Your task to perform on an android device: change timer sound Image 0: 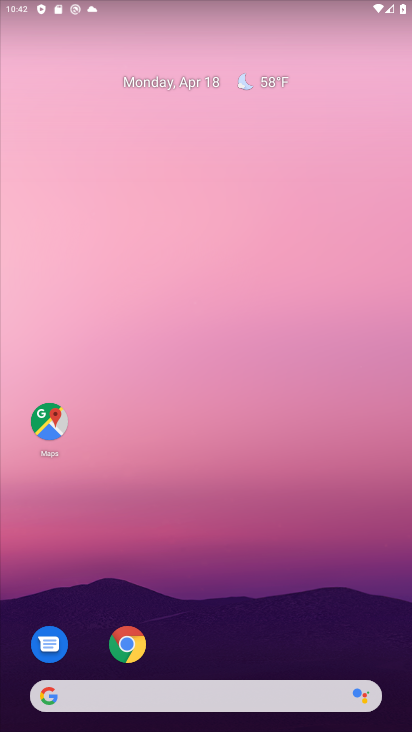
Step 0: drag from (215, 660) to (275, 225)
Your task to perform on an android device: change timer sound Image 1: 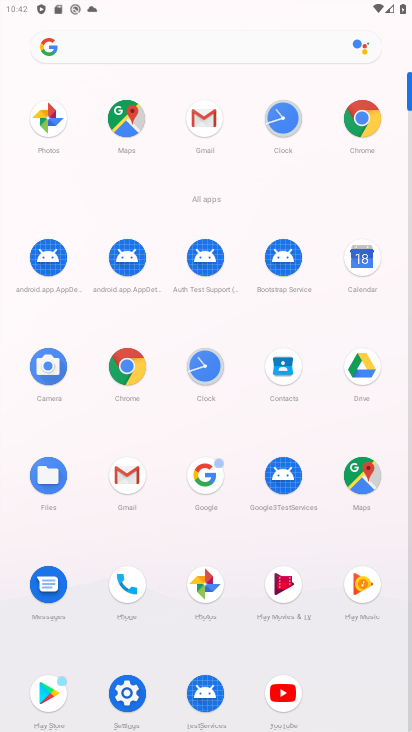
Step 1: click (214, 369)
Your task to perform on an android device: change timer sound Image 2: 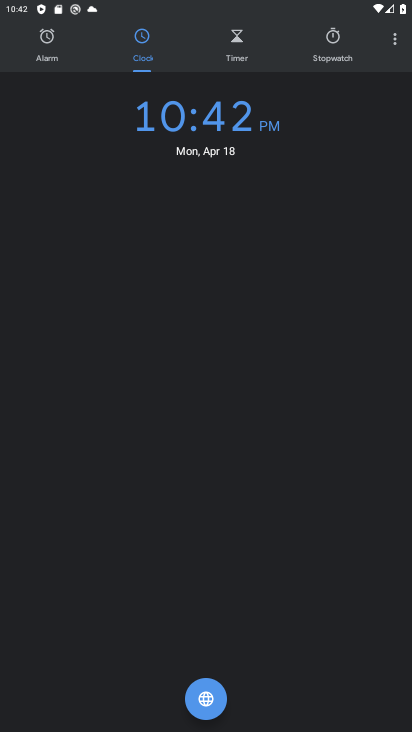
Step 2: click (401, 42)
Your task to perform on an android device: change timer sound Image 3: 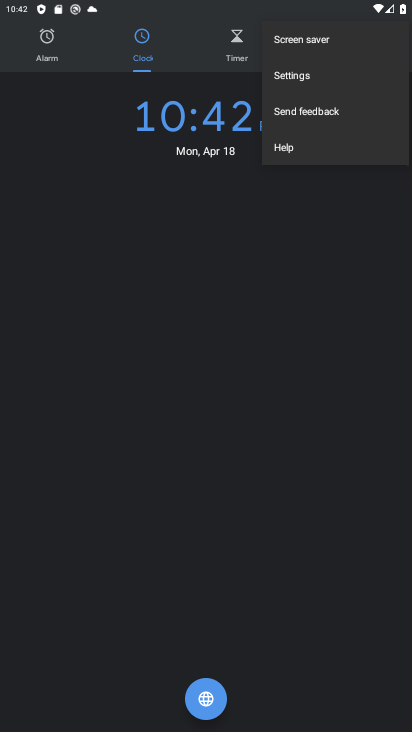
Step 3: click (302, 78)
Your task to perform on an android device: change timer sound Image 4: 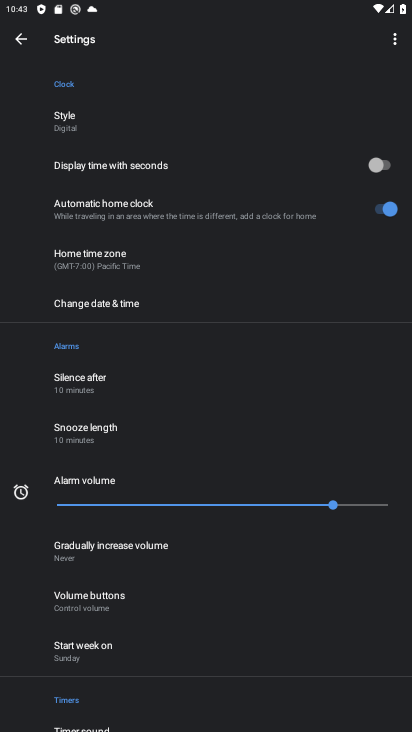
Step 4: drag from (136, 621) to (165, 428)
Your task to perform on an android device: change timer sound Image 5: 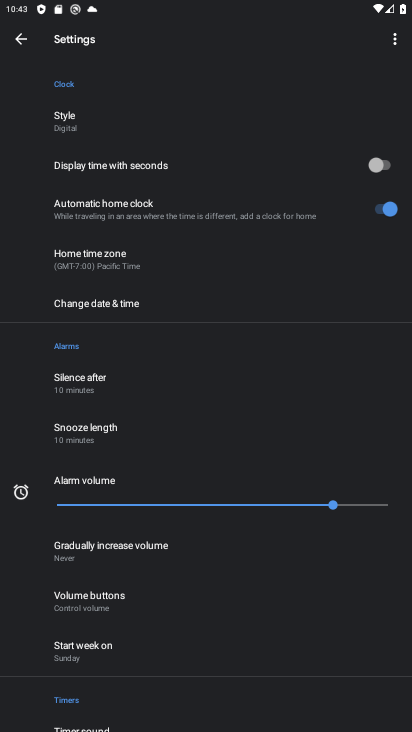
Step 5: drag from (177, 696) to (274, 325)
Your task to perform on an android device: change timer sound Image 6: 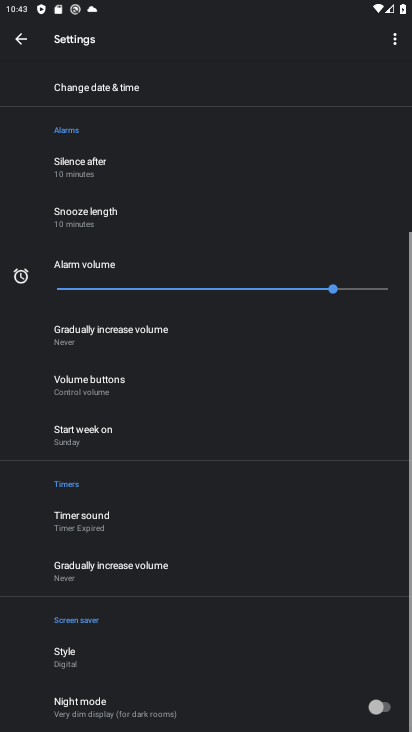
Step 6: drag from (232, 691) to (285, 467)
Your task to perform on an android device: change timer sound Image 7: 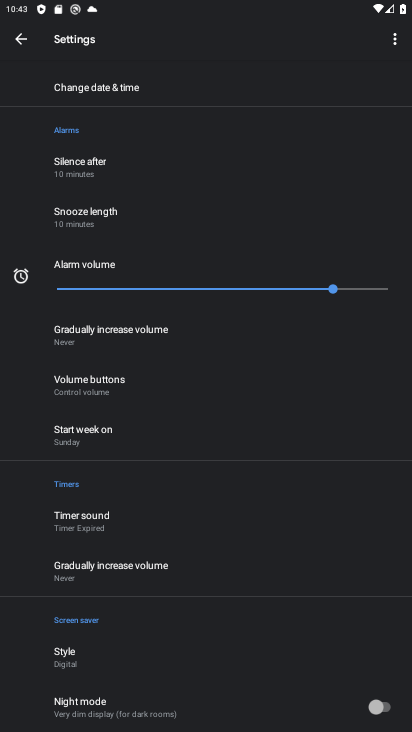
Step 7: click (91, 531)
Your task to perform on an android device: change timer sound Image 8: 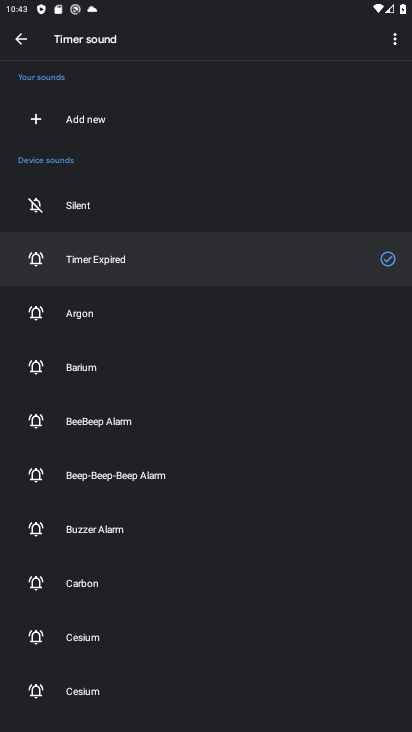
Step 8: click (91, 320)
Your task to perform on an android device: change timer sound Image 9: 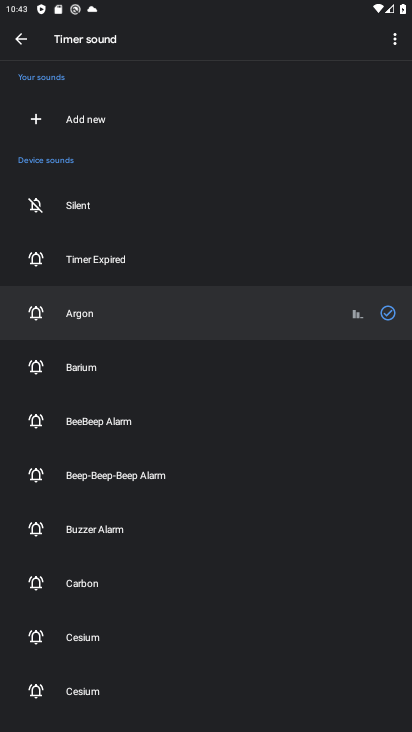
Step 9: task complete